Your task to perform on an android device: Search for sushi restaurants on Maps Image 0: 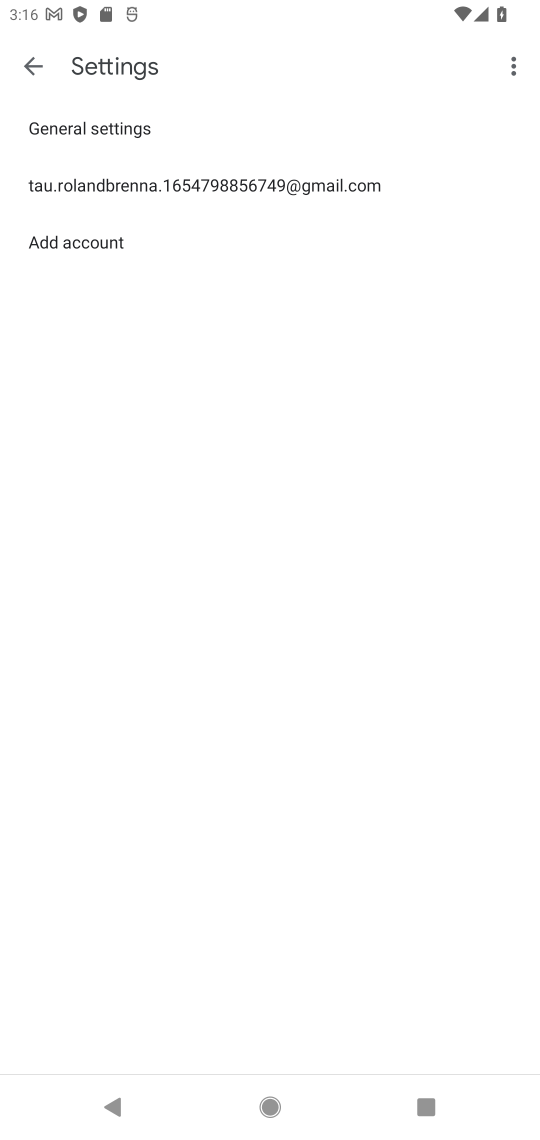
Step 0: press home button
Your task to perform on an android device: Search for sushi restaurants on Maps Image 1: 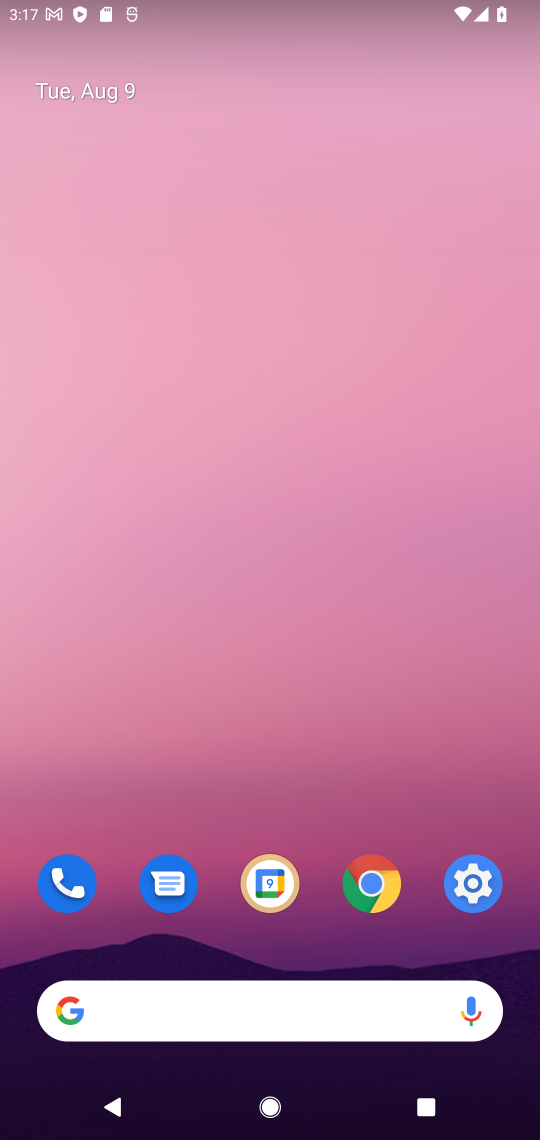
Step 1: drag from (344, 1072) to (263, 378)
Your task to perform on an android device: Search for sushi restaurants on Maps Image 2: 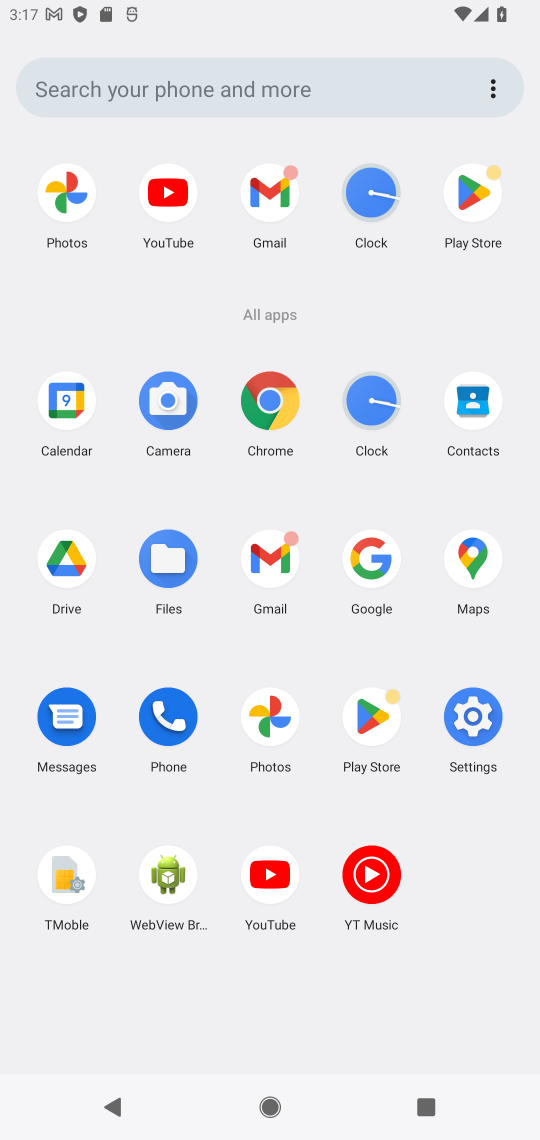
Step 2: click (465, 571)
Your task to perform on an android device: Search for sushi restaurants on Maps Image 3: 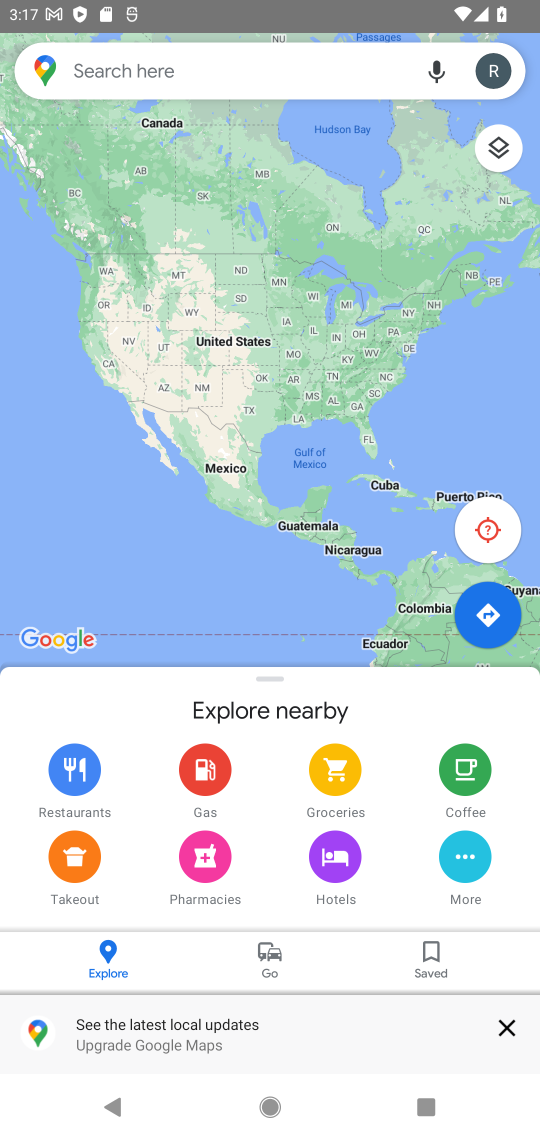
Step 3: click (217, 71)
Your task to perform on an android device: Search for sushi restaurants on Maps Image 4: 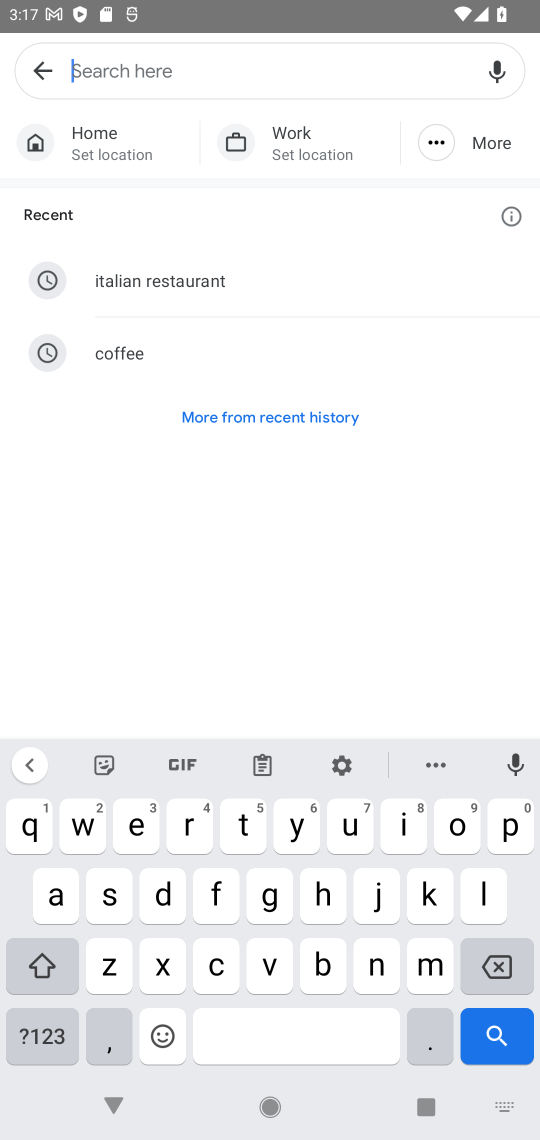
Step 4: click (110, 898)
Your task to perform on an android device: Search for sushi restaurants on Maps Image 5: 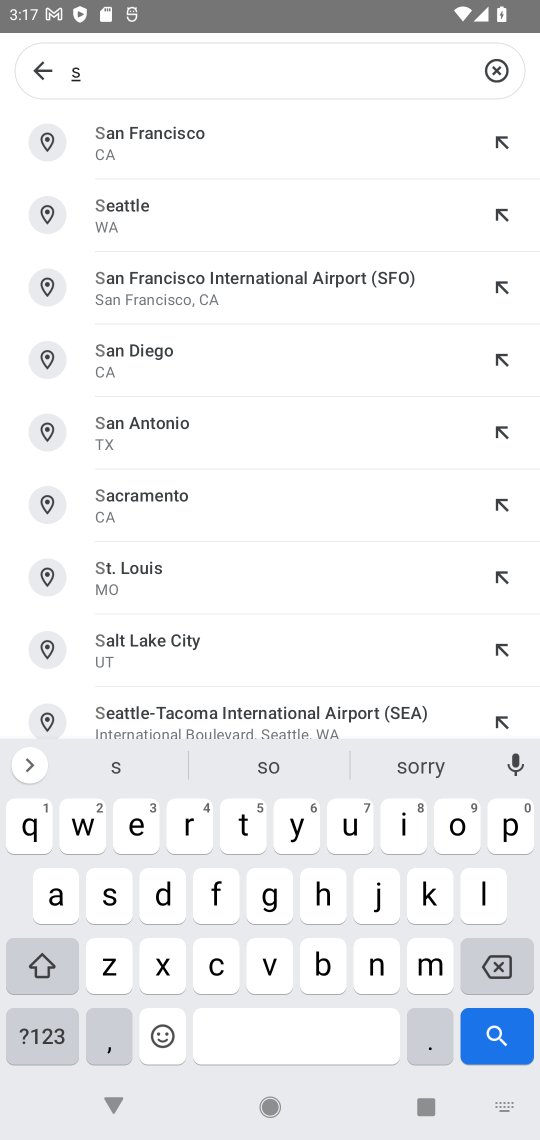
Step 5: click (347, 837)
Your task to perform on an android device: Search for sushi restaurants on Maps Image 6: 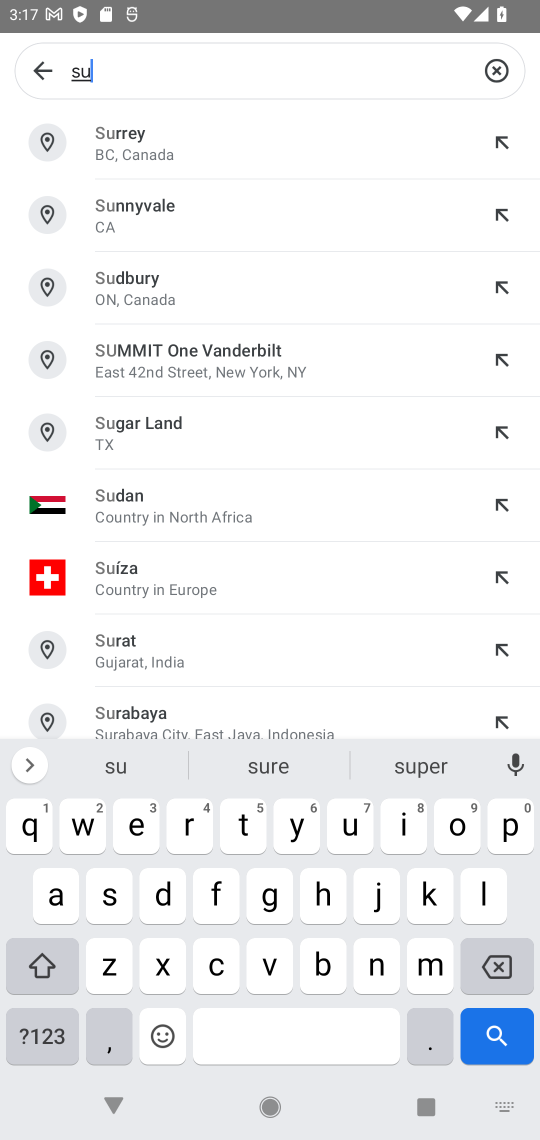
Step 6: click (101, 907)
Your task to perform on an android device: Search for sushi restaurants on Maps Image 7: 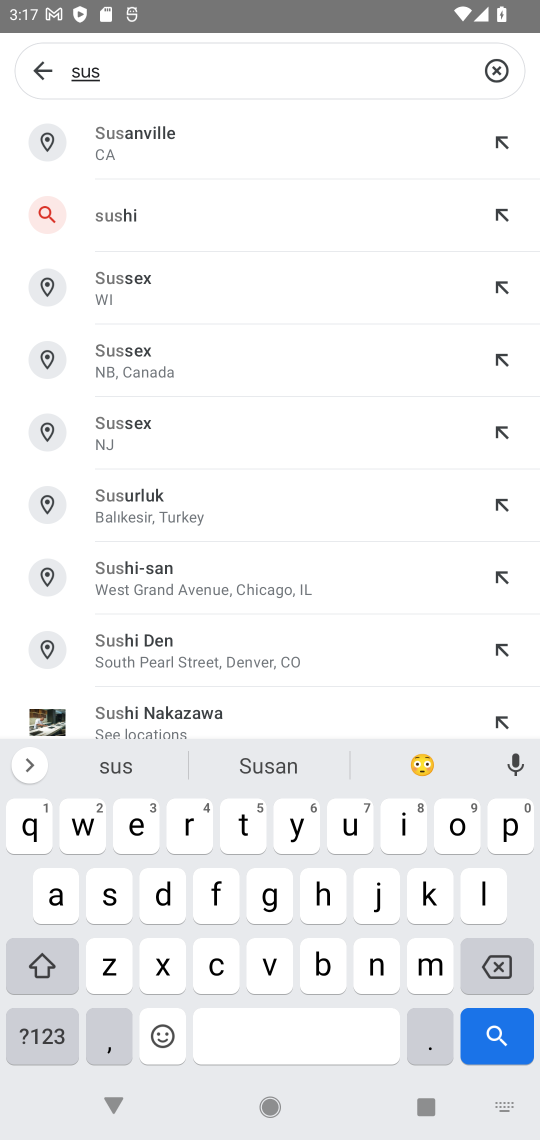
Step 7: click (327, 902)
Your task to perform on an android device: Search for sushi restaurants on Maps Image 8: 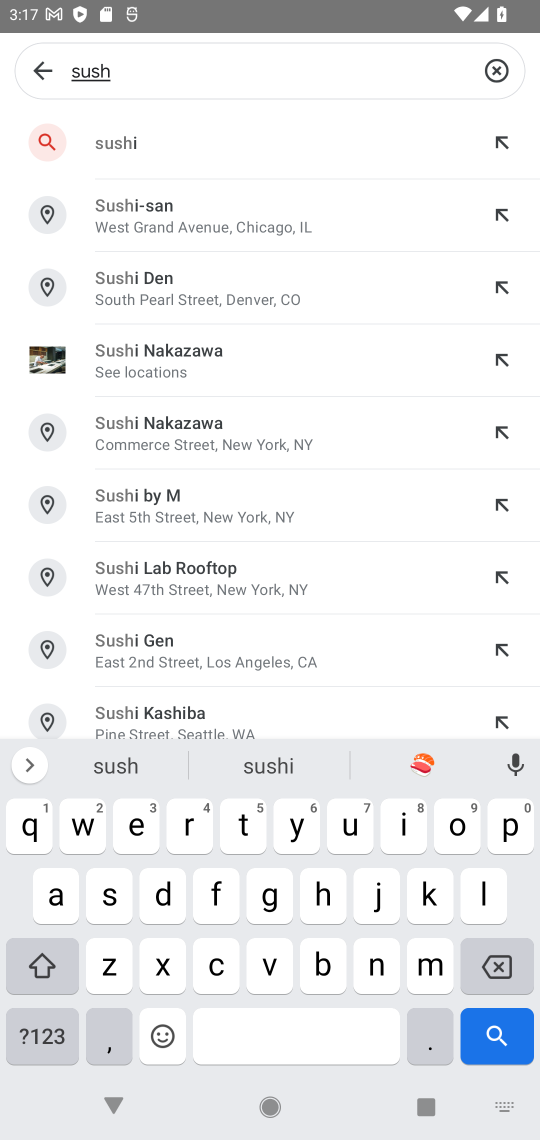
Step 8: click (129, 134)
Your task to perform on an android device: Search for sushi restaurants on Maps Image 9: 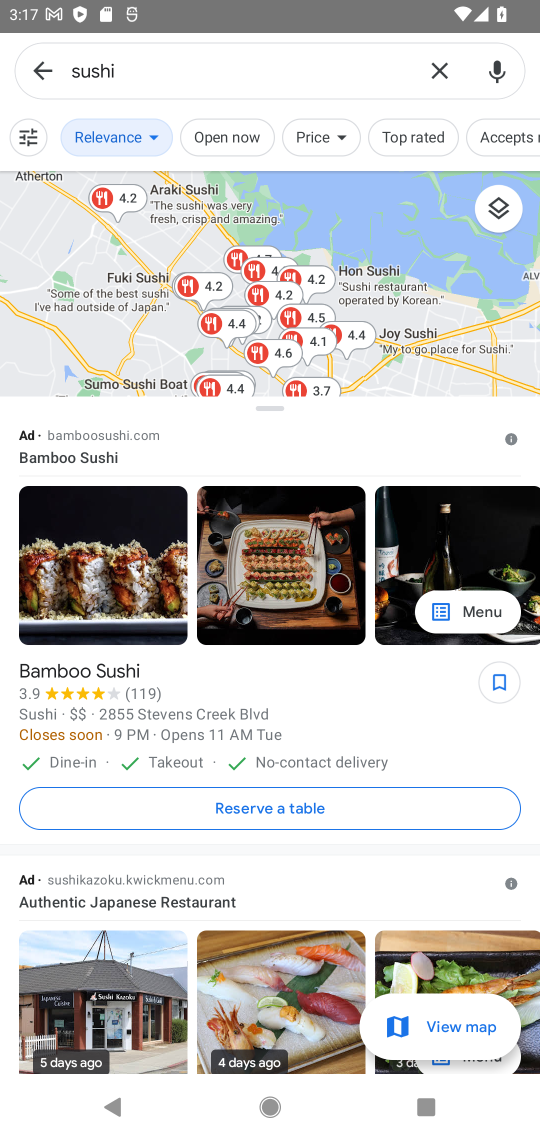
Step 9: task complete